Your task to perform on an android device: What's the weather going to be this weekend? Image 0: 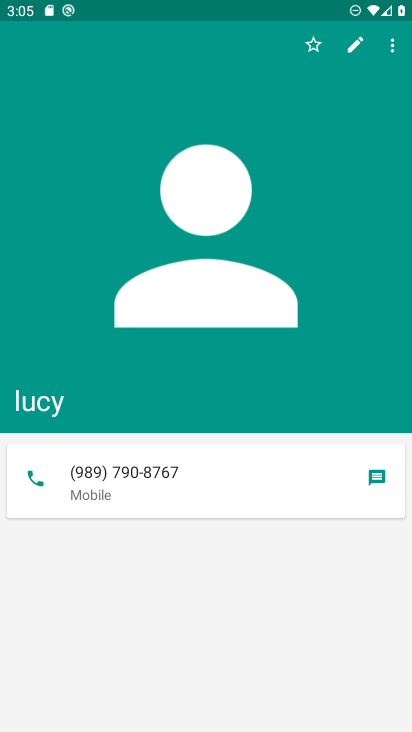
Step 0: press home button
Your task to perform on an android device: What's the weather going to be this weekend? Image 1: 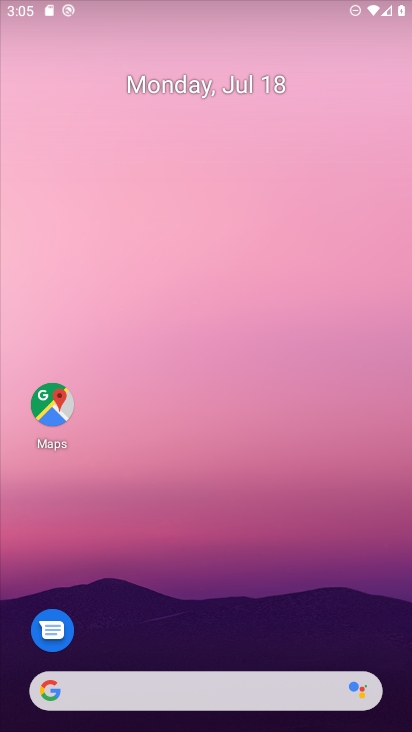
Step 1: drag from (308, 562) to (387, 98)
Your task to perform on an android device: What's the weather going to be this weekend? Image 2: 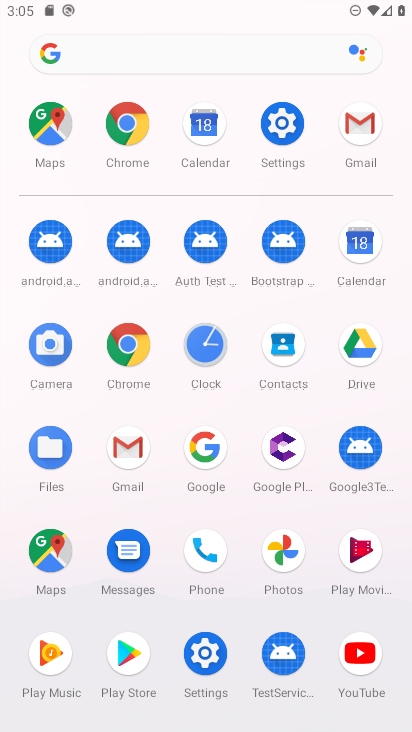
Step 2: click (116, 347)
Your task to perform on an android device: What's the weather going to be this weekend? Image 3: 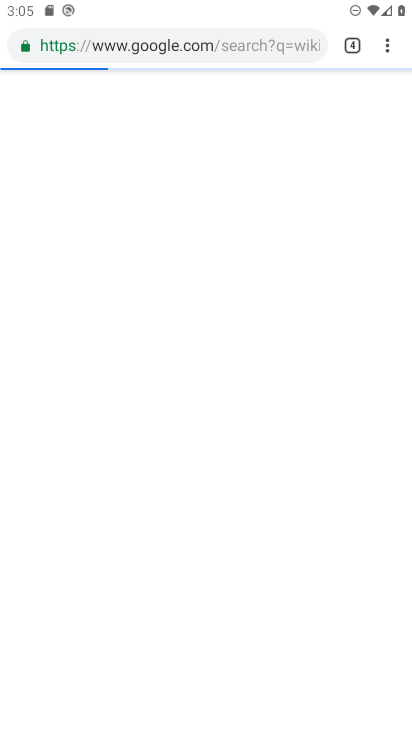
Step 3: click (188, 42)
Your task to perform on an android device: What's the weather going to be this weekend? Image 4: 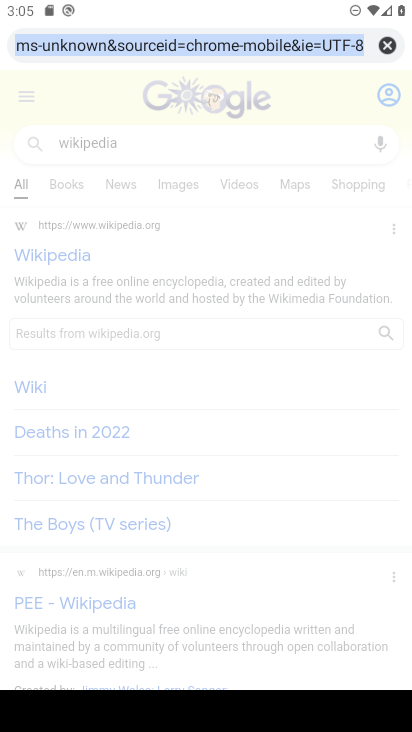
Step 4: type "weather going to be this weekend"
Your task to perform on an android device: What's the weather going to be this weekend? Image 5: 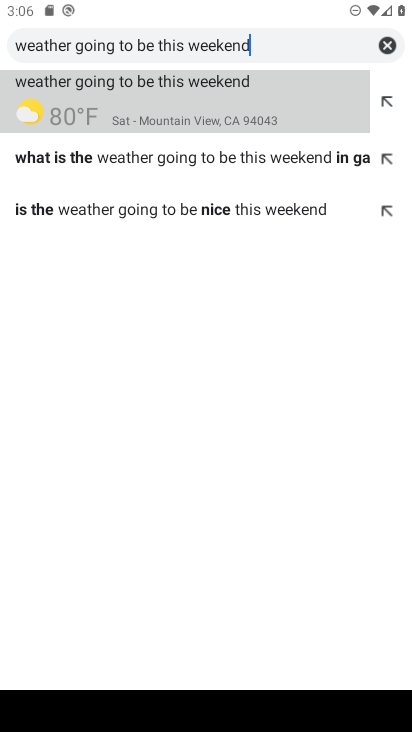
Step 5: click (255, 118)
Your task to perform on an android device: What's the weather going to be this weekend? Image 6: 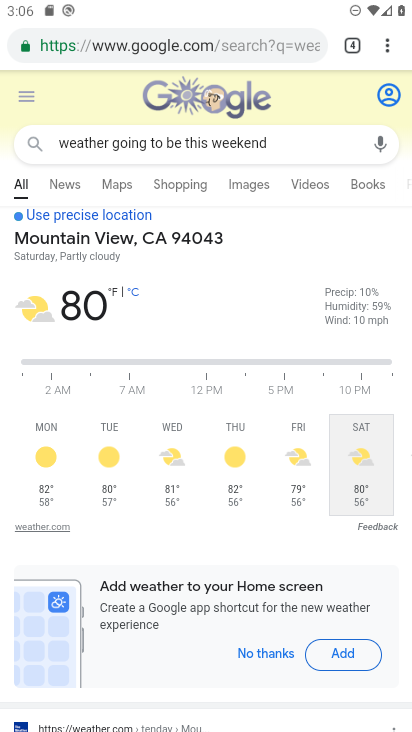
Step 6: task complete